Your task to perform on an android device: set an alarm Image 0: 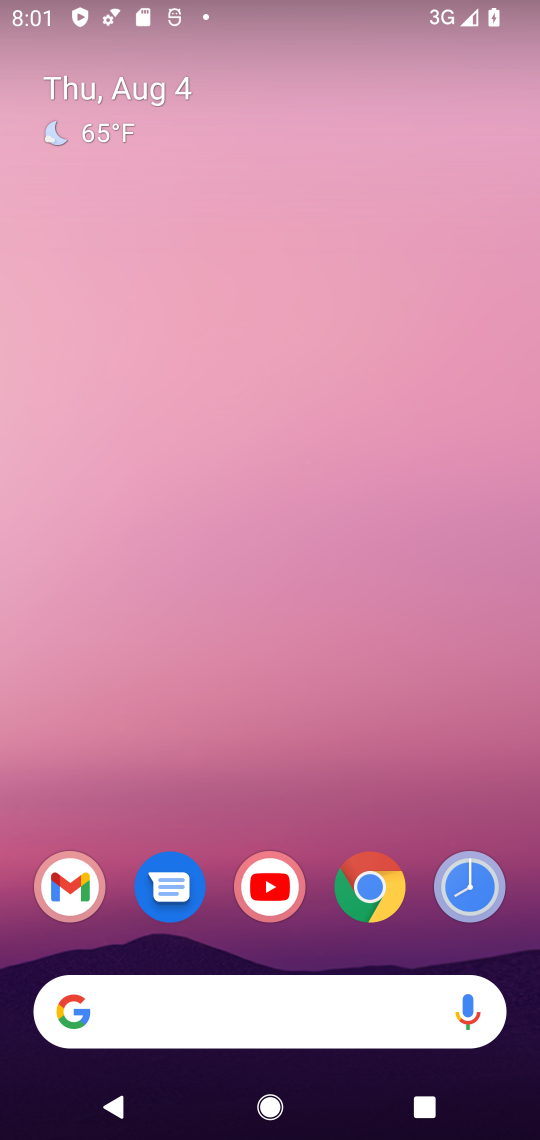
Step 0: drag from (286, 777) to (292, 131)
Your task to perform on an android device: set an alarm Image 1: 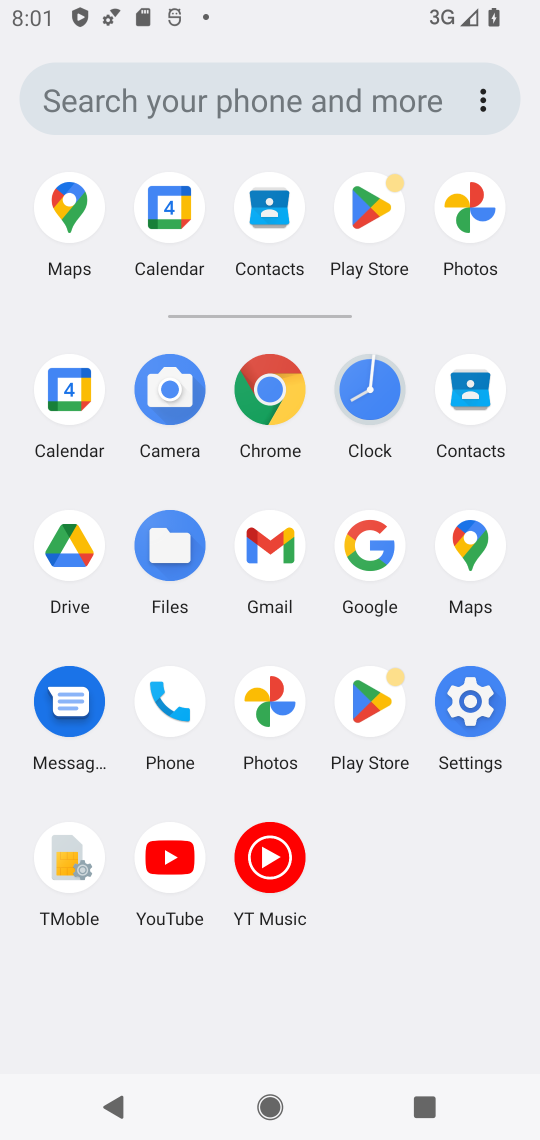
Step 1: click (363, 411)
Your task to perform on an android device: set an alarm Image 2: 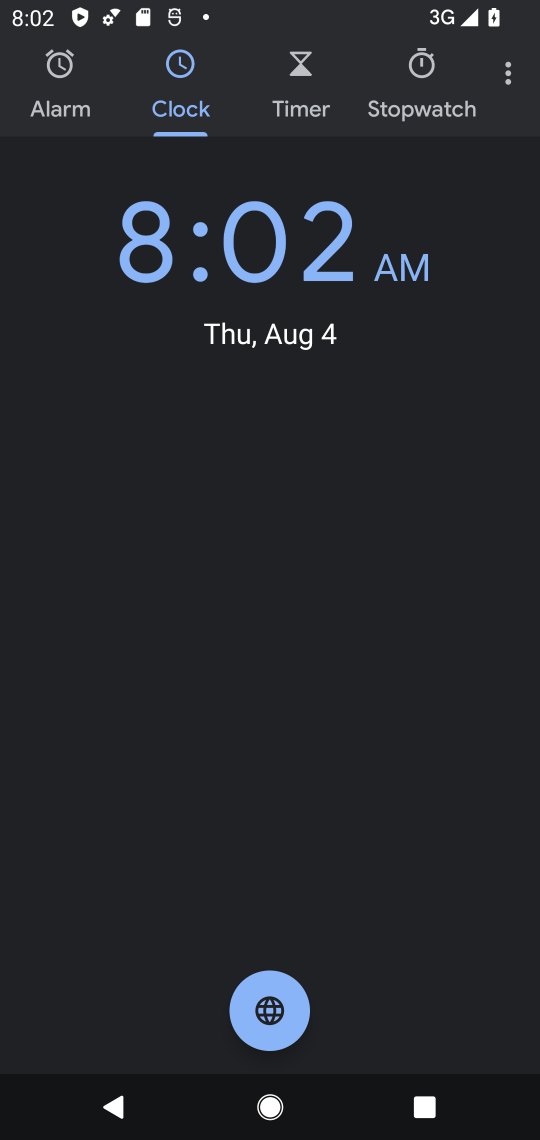
Step 2: click (23, 104)
Your task to perform on an android device: set an alarm Image 3: 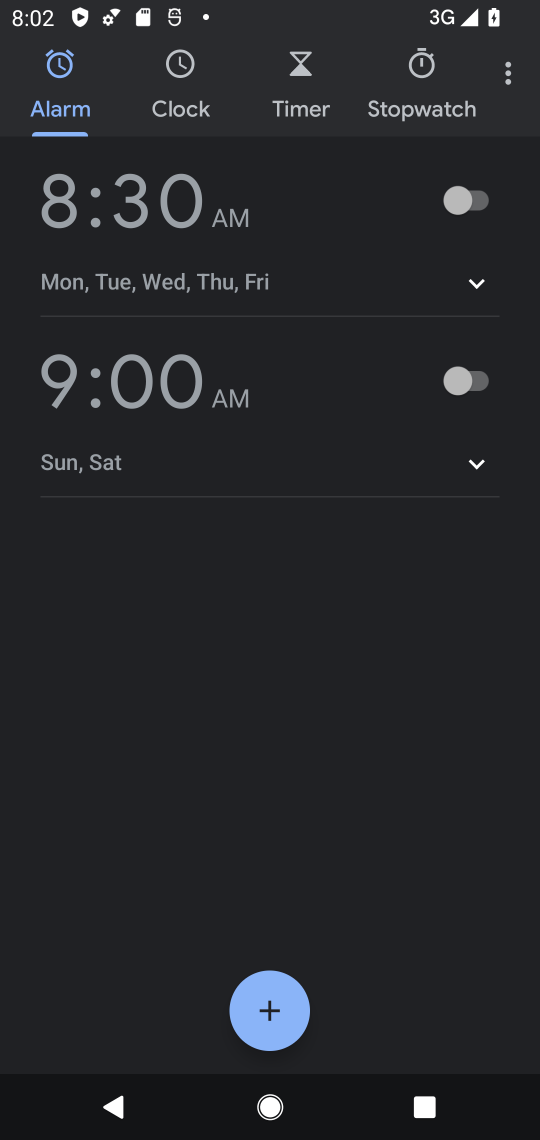
Step 3: click (292, 1011)
Your task to perform on an android device: set an alarm Image 4: 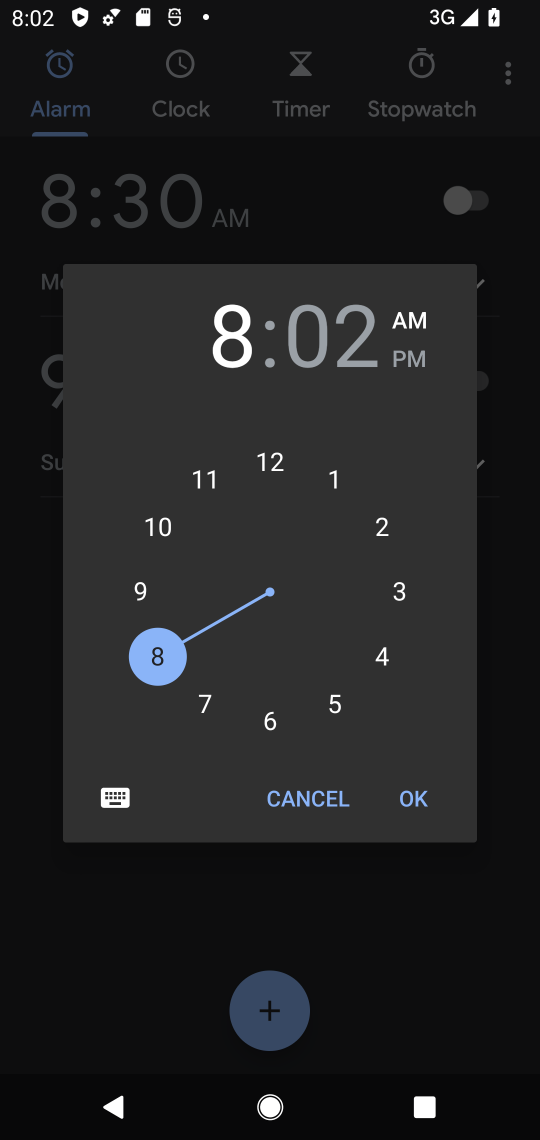
Step 4: click (277, 721)
Your task to perform on an android device: set an alarm Image 5: 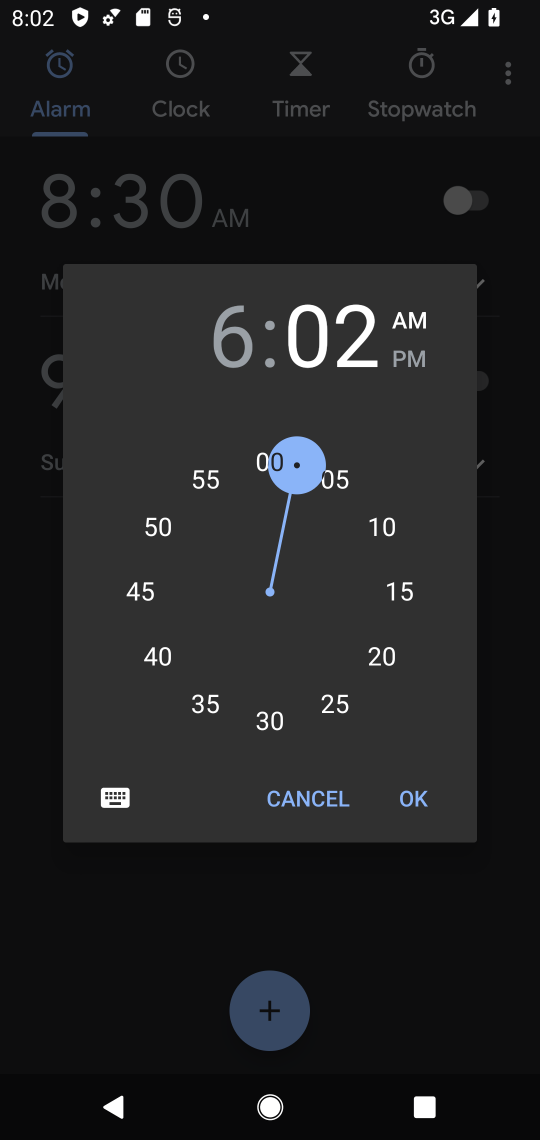
Step 5: click (270, 463)
Your task to perform on an android device: set an alarm Image 6: 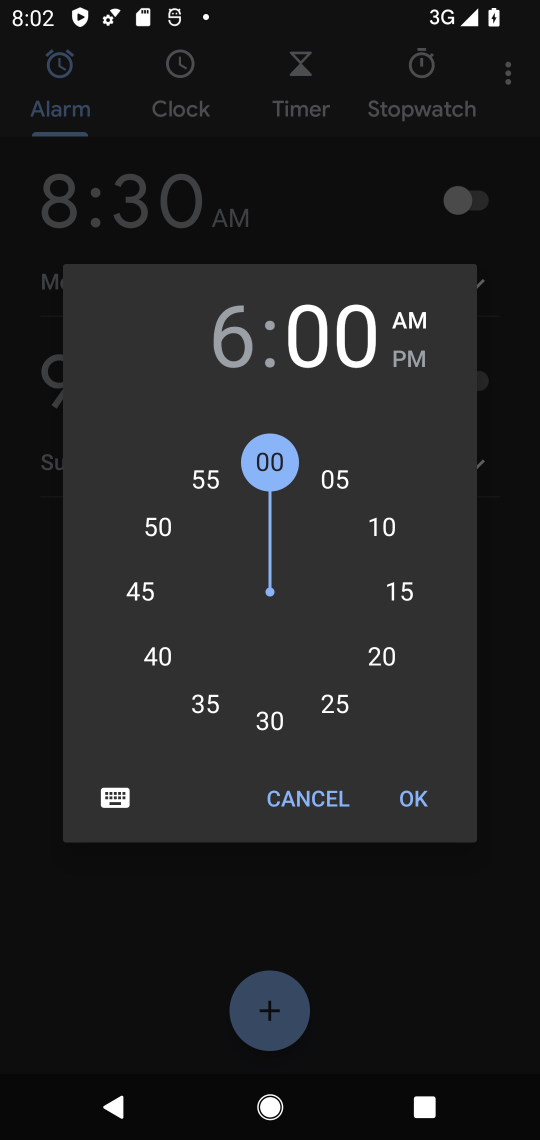
Step 6: click (414, 354)
Your task to perform on an android device: set an alarm Image 7: 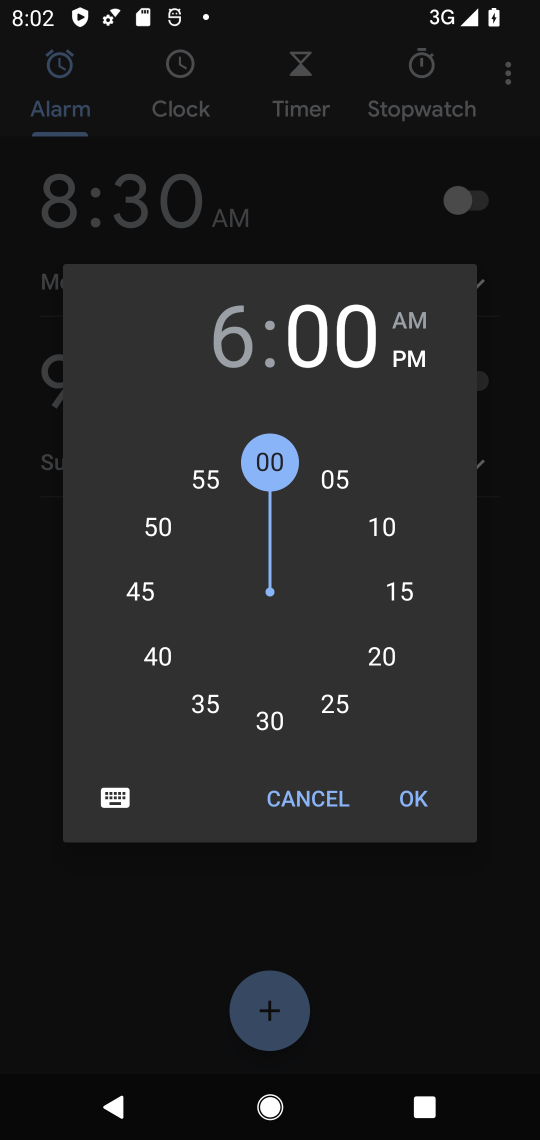
Step 7: click (400, 807)
Your task to perform on an android device: set an alarm Image 8: 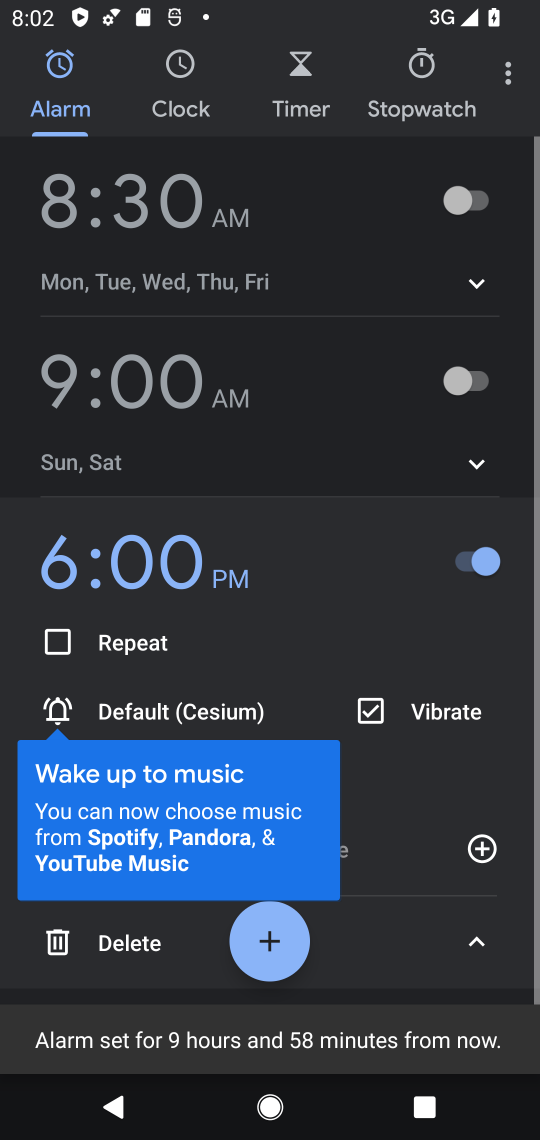
Step 8: task complete